Your task to perform on an android device: Open sound settings Image 0: 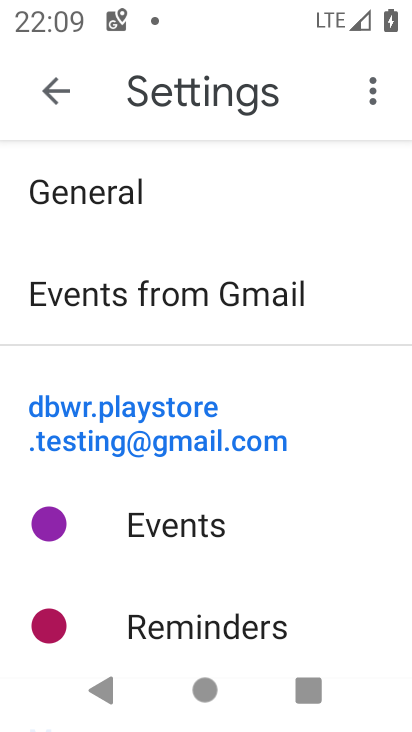
Step 0: press home button
Your task to perform on an android device: Open sound settings Image 1: 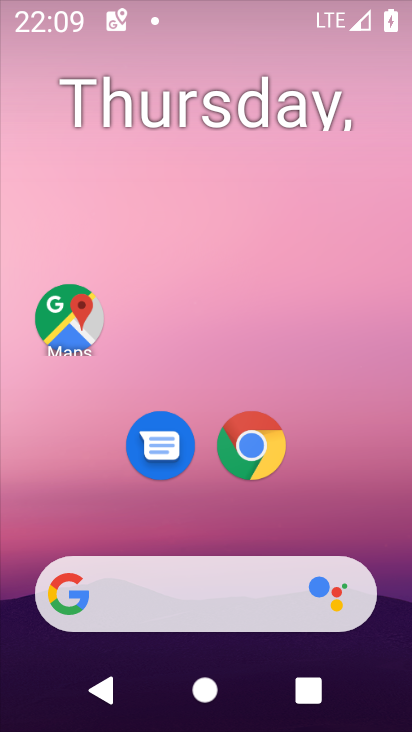
Step 1: drag from (226, 514) to (286, 160)
Your task to perform on an android device: Open sound settings Image 2: 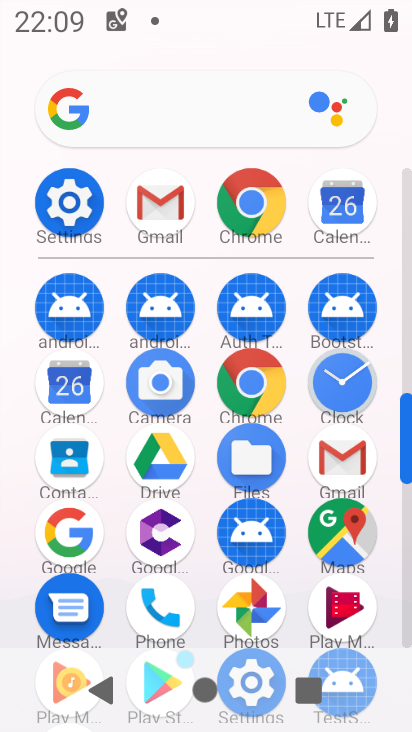
Step 2: drag from (203, 267) to (209, 129)
Your task to perform on an android device: Open sound settings Image 3: 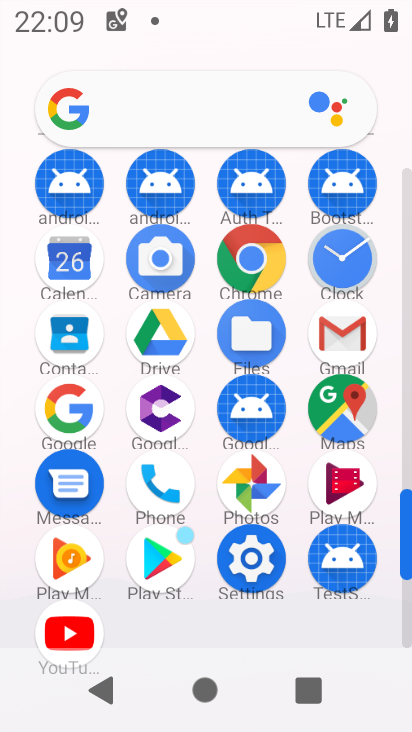
Step 3: click (266, 548)
Your task to perform on an android device: Open sound settings Image 4: 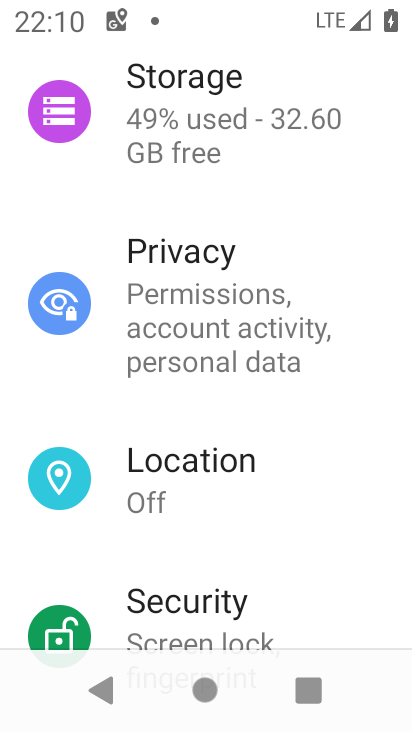
Step 4: drag from (182, 504) to (176, 200)
Your task to perform on an android device: Open sound settings Image 5: 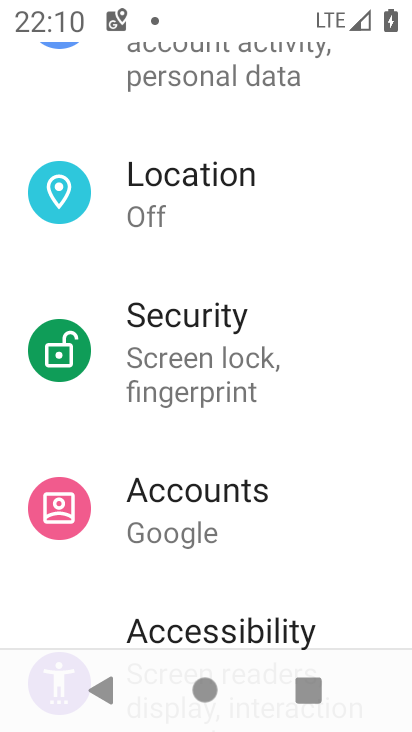
Step 5: drag from (212, 470) to (200, 131)
Your task to perform on an android device: Open sound settings Image 6: 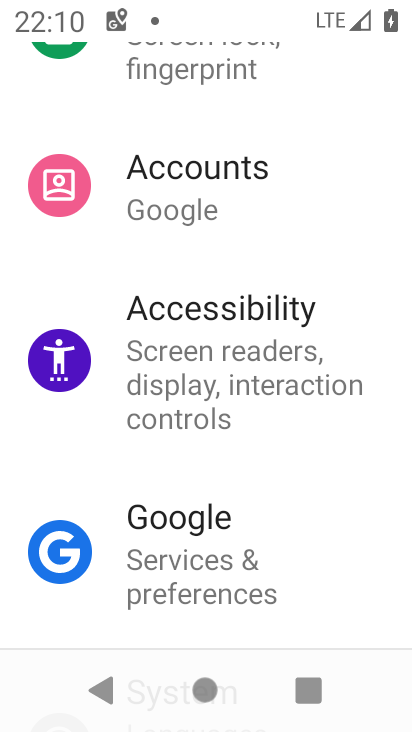
Step 6: drag from (182, 478) to (219, 604)
Your task to perform on an android device: Open sound settings Image 7: 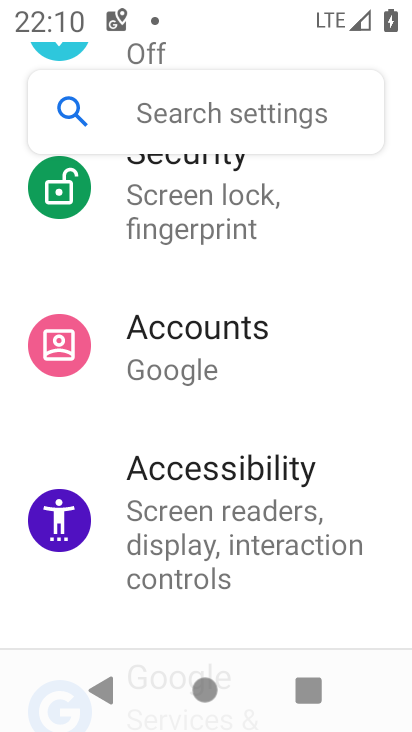
Step 7: drag from (249, 246) to (258, 615)
Your task to perform on an android device: Open sound settings Image 8: 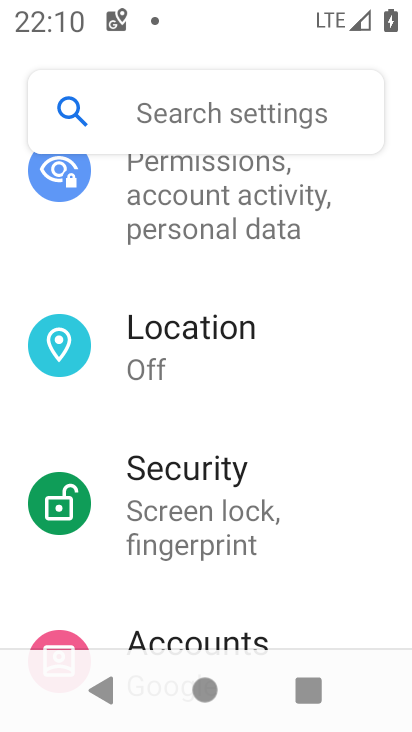
Step 8: drag from (244, 287) to (260, 580)
Your task to perform on an android device: Open sound settings Image 9: 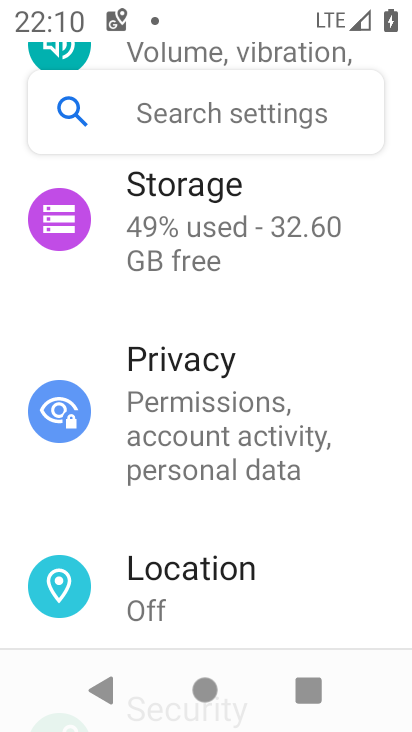
Step 9: drag from (234, 297) to (253, 536)
Your task to perform on an android device: Open sound settings Image 10: 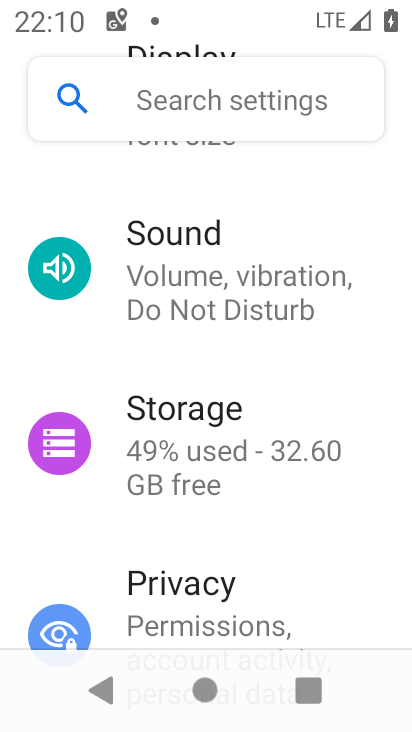
Step 10: click (217, 285)
Your task to perform on an android device: Open sound settings Image 11: 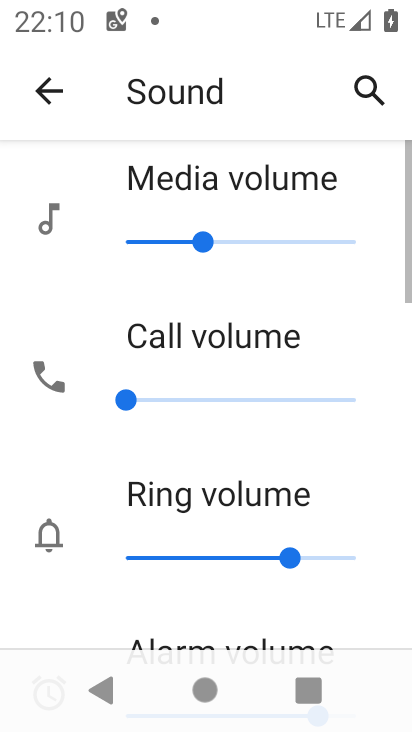
Step 11: task complete